Your task to perform on an android device: Add "dell alienware" to the cart on amazon.com, then select checkout. Image 0: 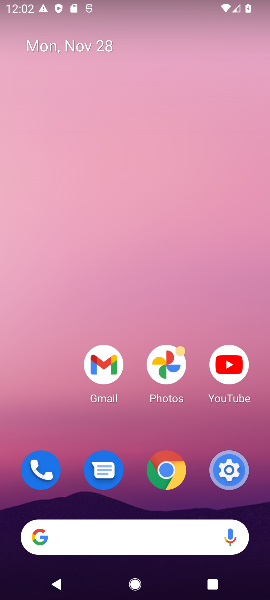
Step 0: click (112, 531)
Your task to perform on an android device: Add "dell alienware" to the cart on amazon.com, then select checkout. Image 1: 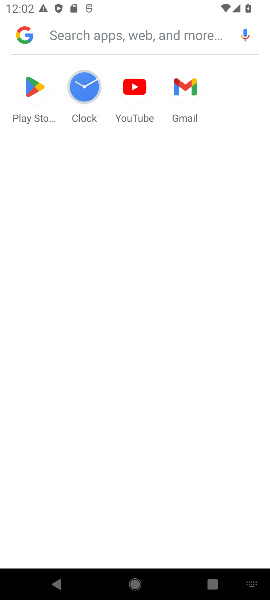
Step 1: task complete